Your task to perform on an android device: Open Google Chrome and click the shortcut for Amazon.com Image 0: 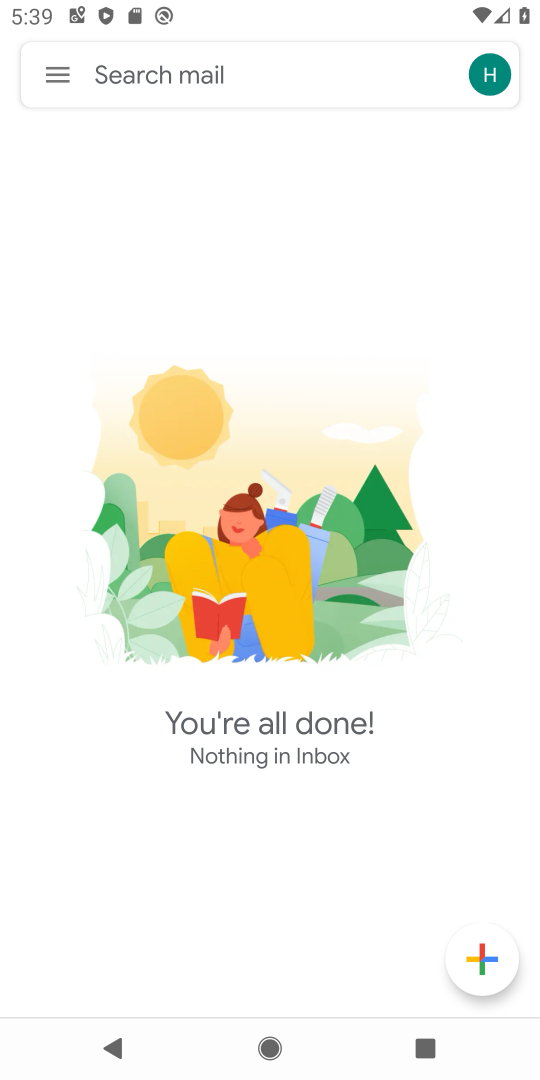
Step 0: press home button
Your task to perform on an android device: Open Google Chrome and click the shortcut for Amazon.com Image 1: 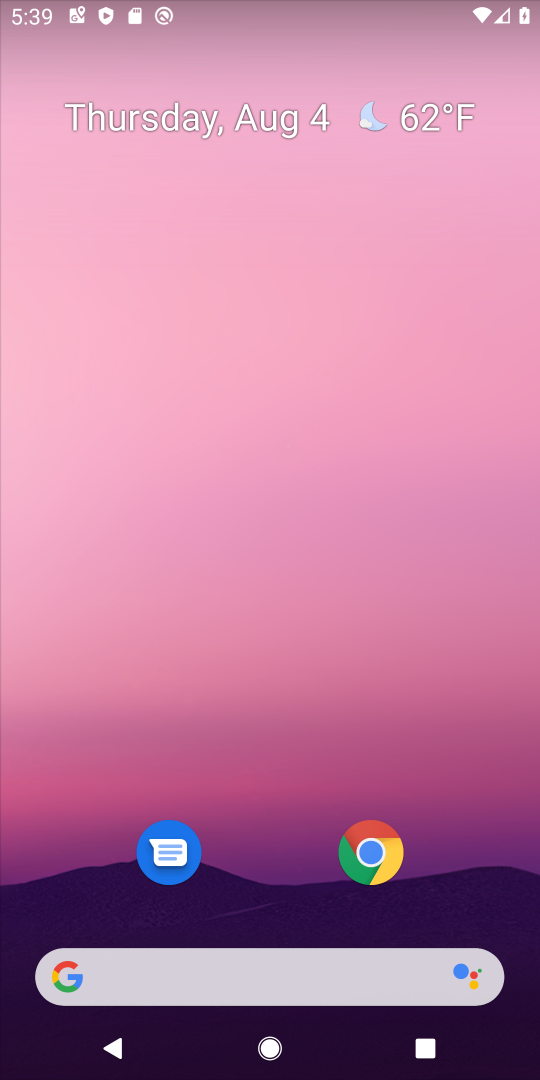
Step 1: drag from (276, 943) to (268, 245)
Your task to perform on an android device: Open Google Chrome and click the shortcut for Amazon.com Image 2: 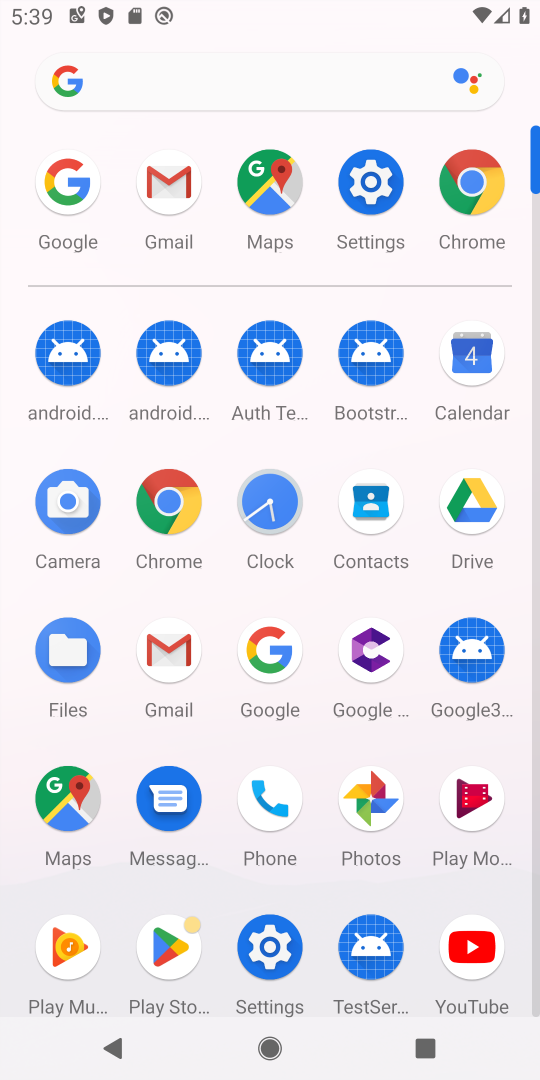
Step 2: click (475, 184)
Your task to perform on an android device: Open Google Chrome and click the shortcut for Amazon.com Image 3: 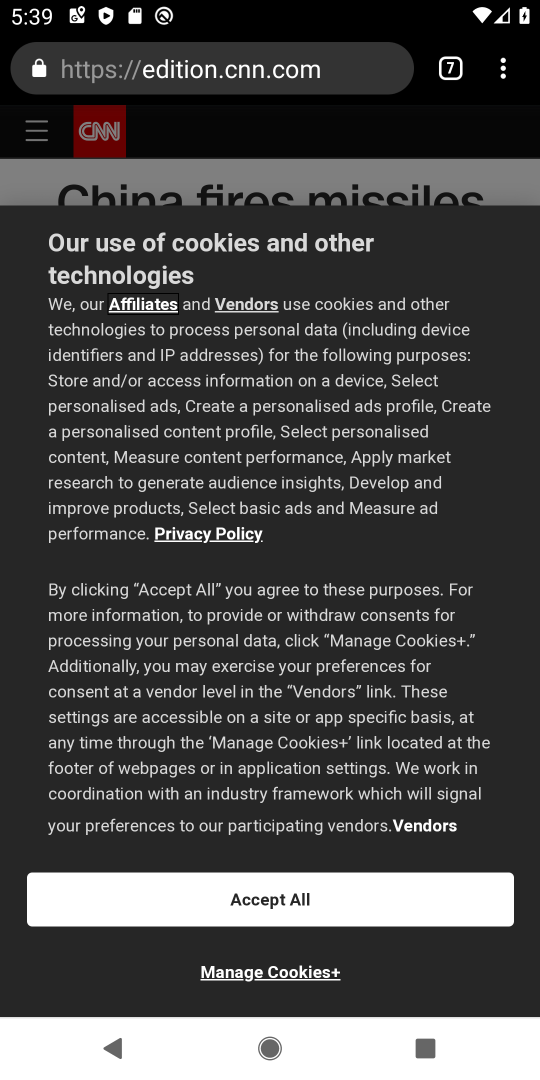
Step 3: click (502, 83)
Your task to perform on an android device: Open Google Chrome and click the shortcut for Amazon.com Image 4: 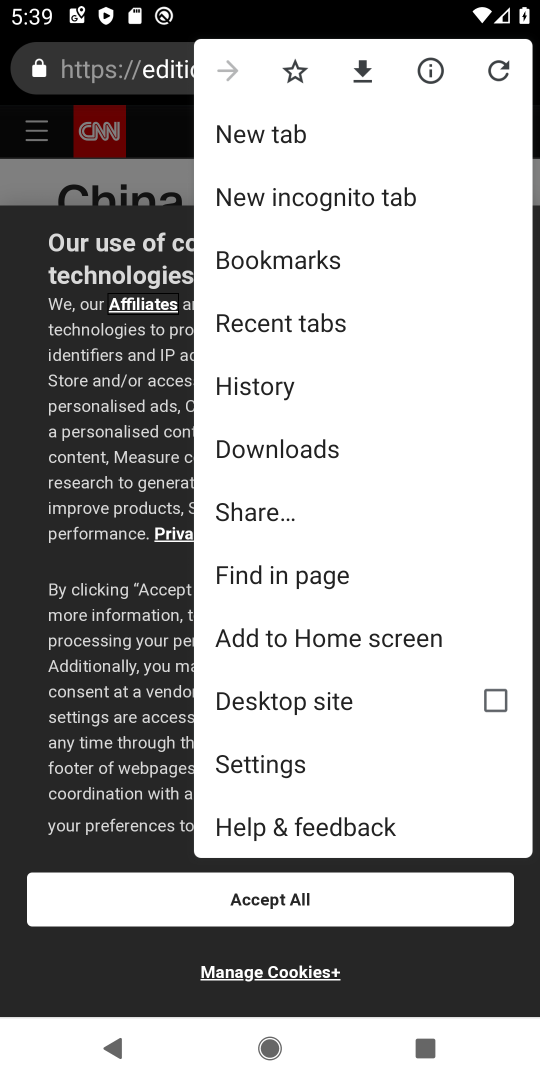
Step 4: click (280, 125)
Your task to perform on an android device: Open Google Chrome and click the shortcut for Amazon.com Image 5: 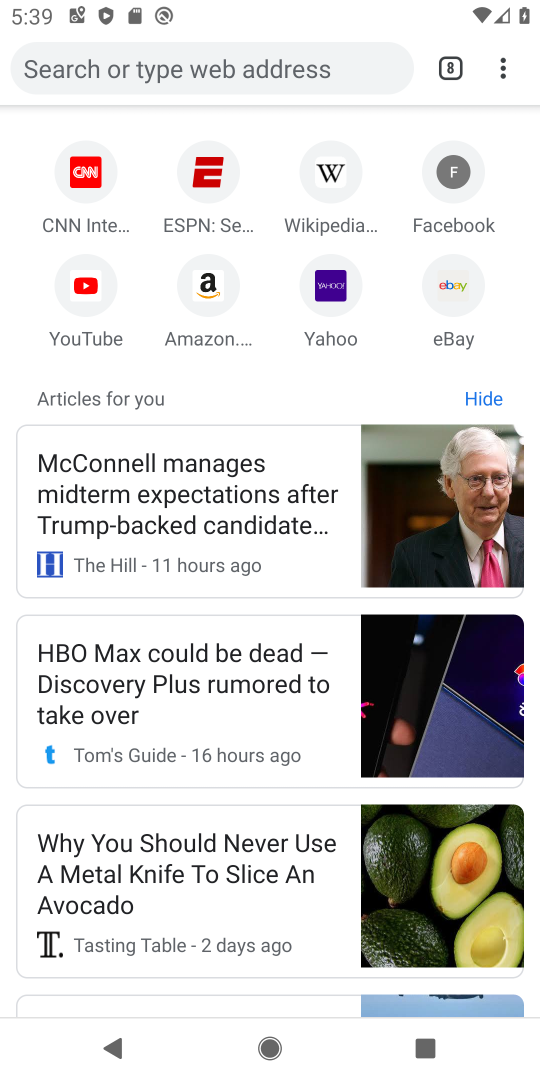
Step 5: click (210, 283)
Your task to perform on an android device: Open Google Chrome and click the shortcut for Amazon.com Image 6: 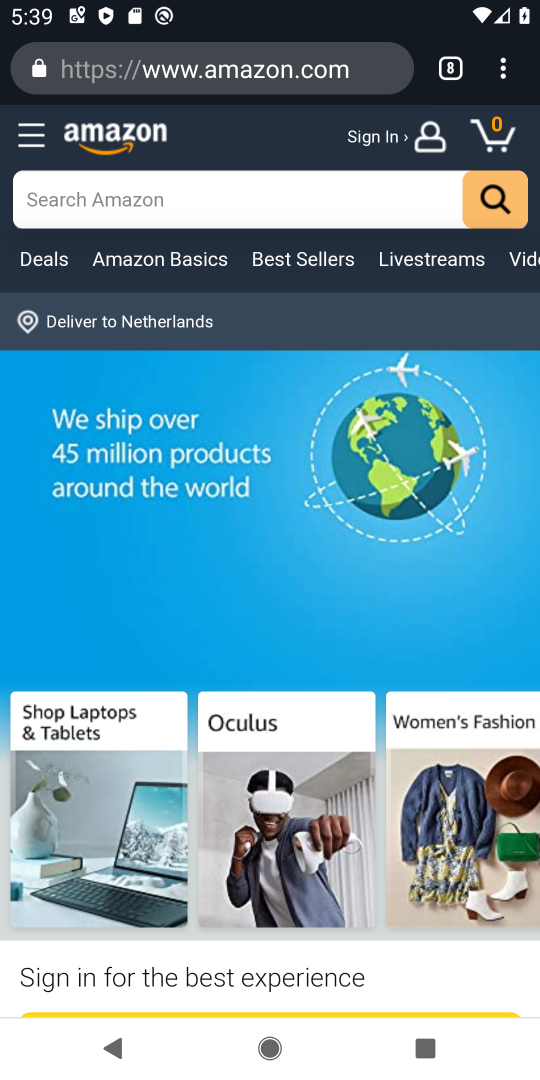
Step 6: task complete